Your task to perform on an android device: Search for pizza restaurants on Maps Image 0: 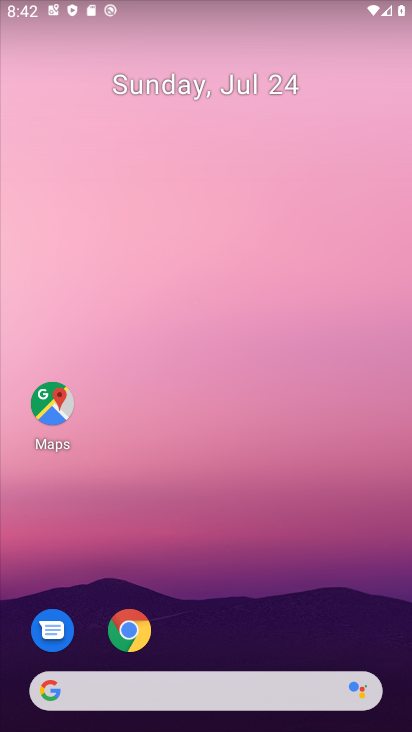
Step 0: click (49, 403)
Your task to perform on an android device: Search for pizza restaurants on Maps Image 1: 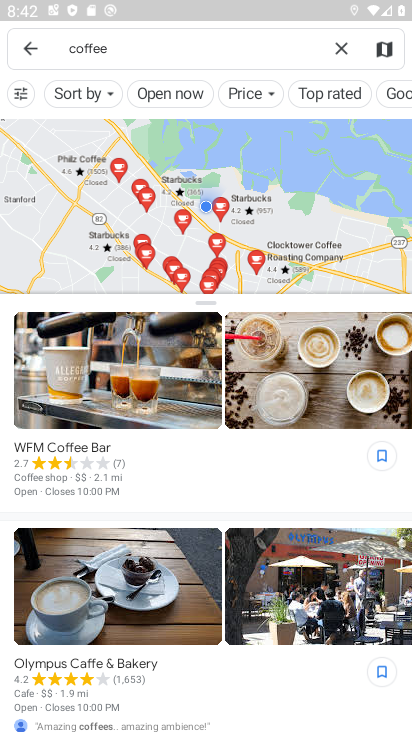
Step 1: click (334, 43)
Your task to perform on an android device: Search for pizza restaurants on Maps Image 2: 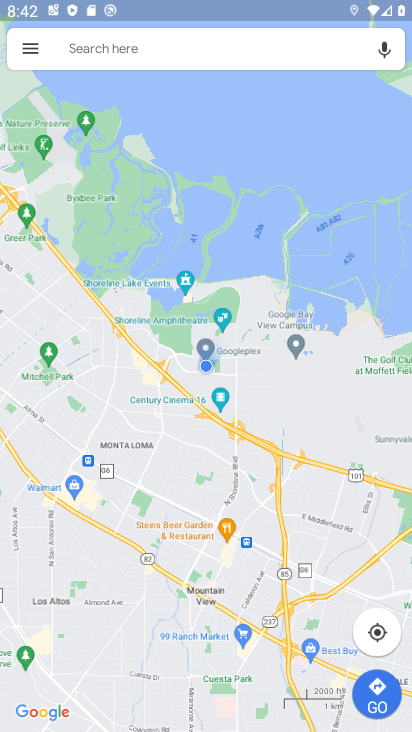
Step 2: click (231, 45)
Your task to perform on an android device: Search for pizza restaurants on Maps Image 3: 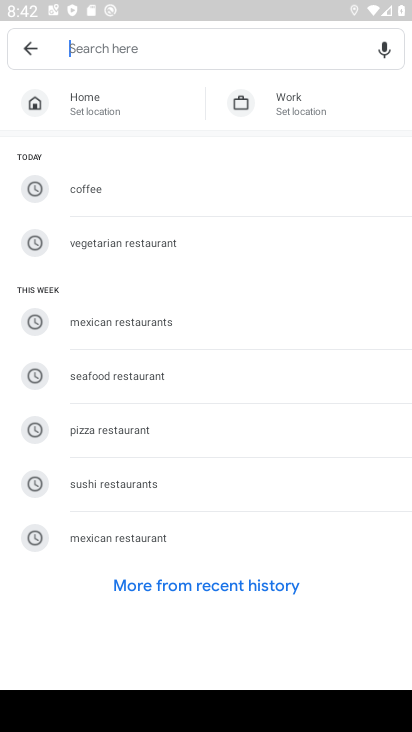
Step 3: click (136, 434)
Your task to perform on an android device: Search for pizza restaurants on Maps Image 4: 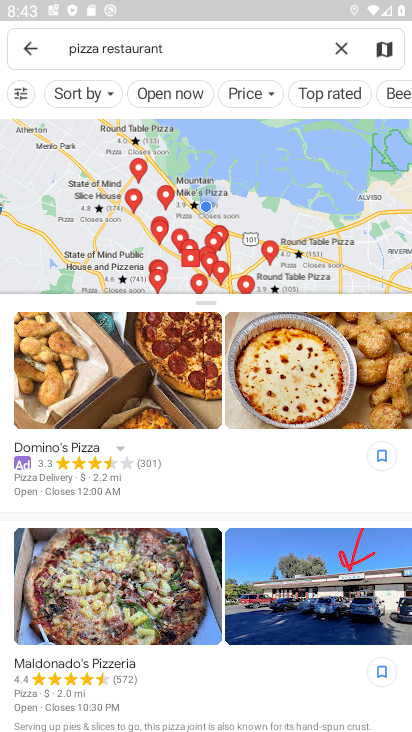
Step 4: task complete